Your task to perform on an android device: install app "Facebook" Image 0: 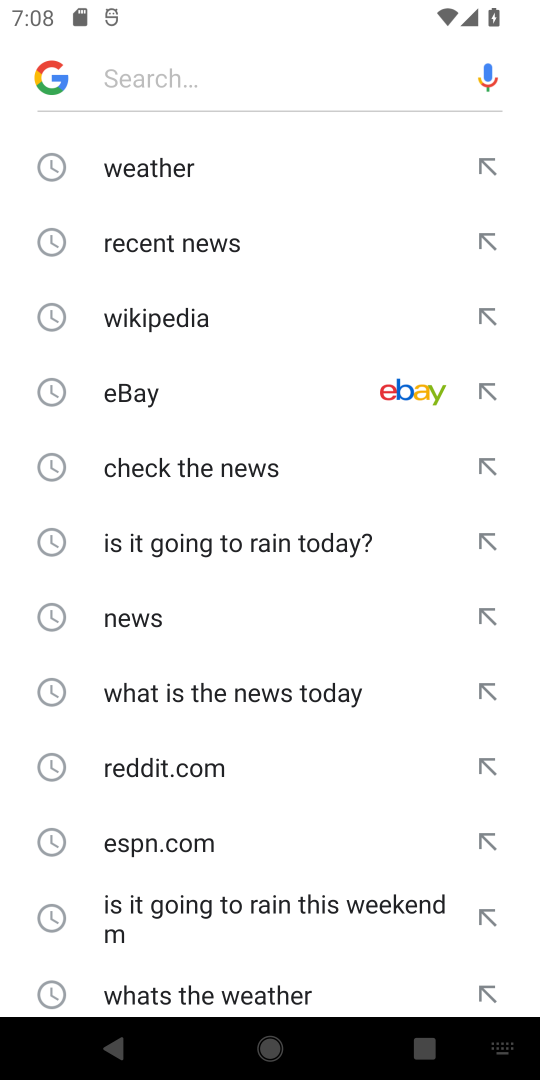
Step 0: press back button
Your task to perform on an android device: install app "Facebook" Image 1: 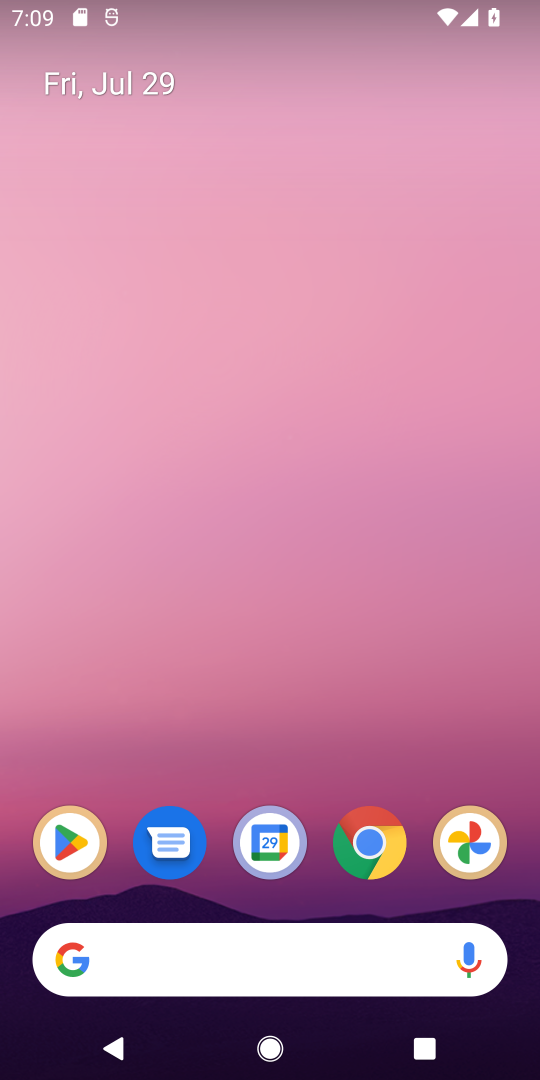
Step 1: click (281, 149)
Your task to perform on an android device: install app "Facebook" Image 2: 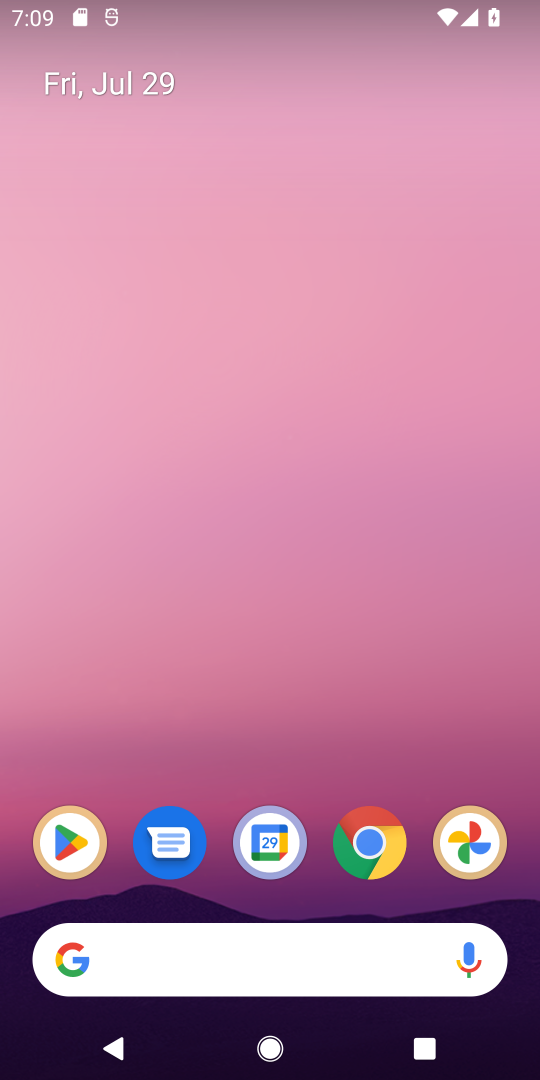
Step 2: drag from (376, 703) to (294, 127)
Your task to perform on an android device: install app "Facebook" Image 3: 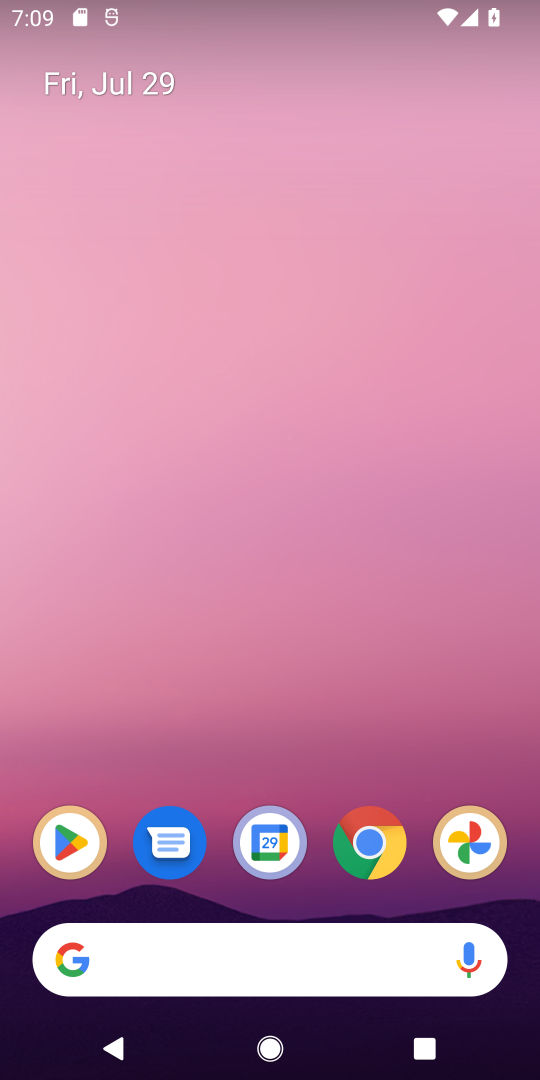
Step 3: drag from (334, 613) to (271, 89)
Your task to perform on an android device: install app "Facebook" Image 4: 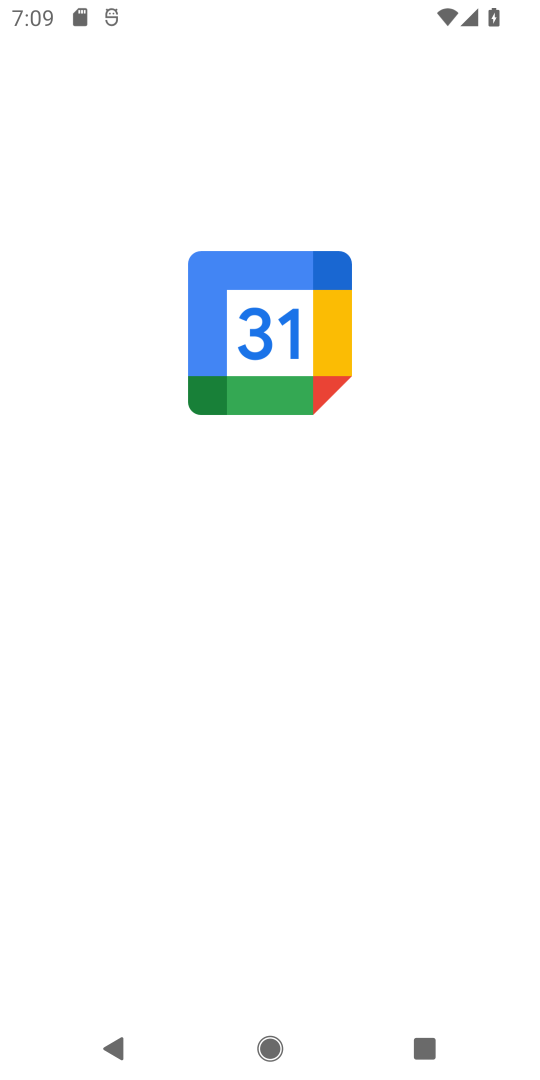
Step 4: drag from (285, 587) to (237, 154)
Your task to perform on an android device: install app "Facebook" Image 5: 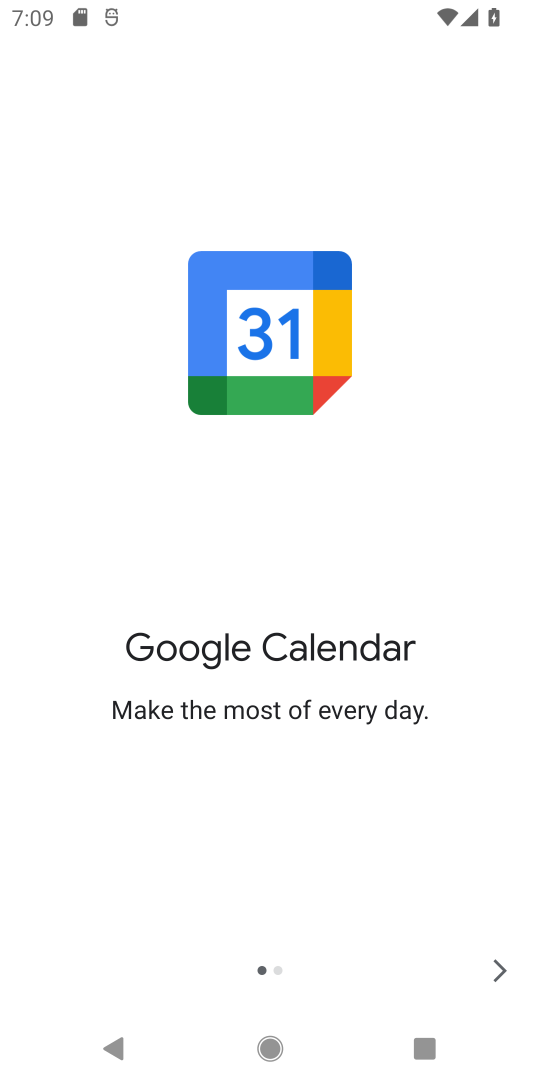
Step 5: press back button
Your task to perform on an android device: install app "Facebook" Image 6: 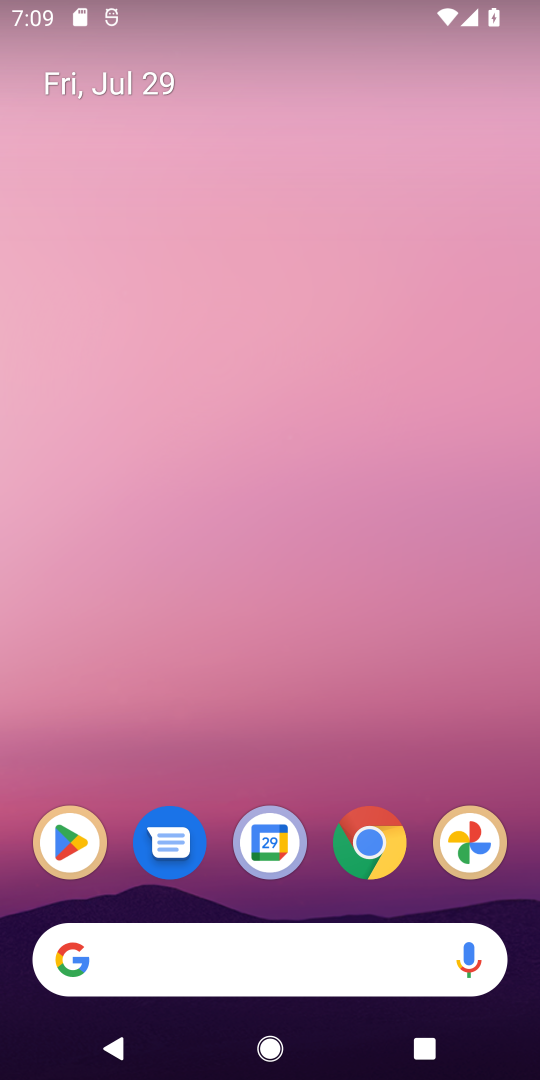
Step 6: drag from (286, 916) to (261, 371)
Your task to perform on an android device: install app "Facebook" Image 7: 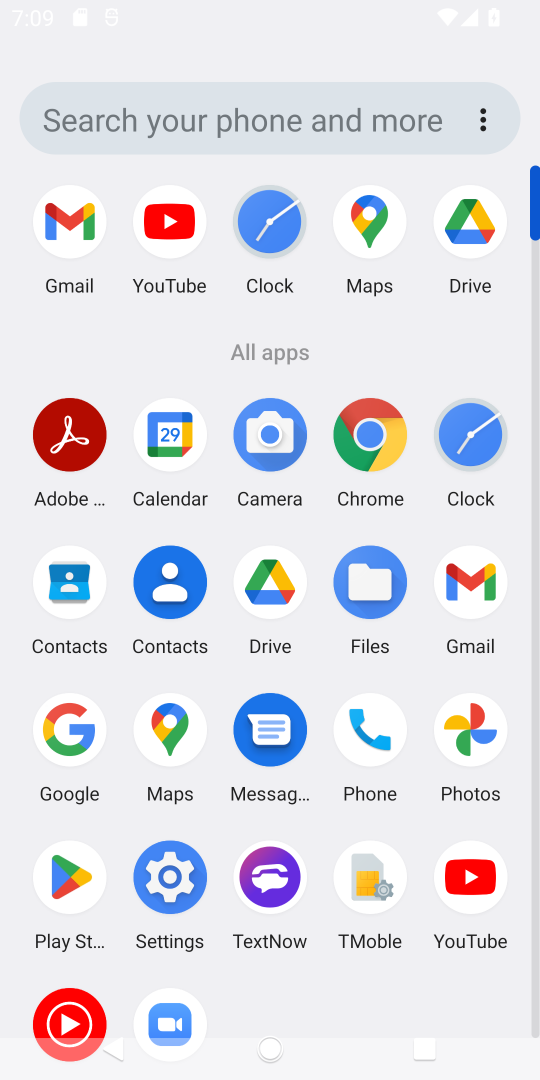
Step 7: drag from (284, 905) to (210, 389)
Your task to perform on an android device: install app "Facebook" Image 8: 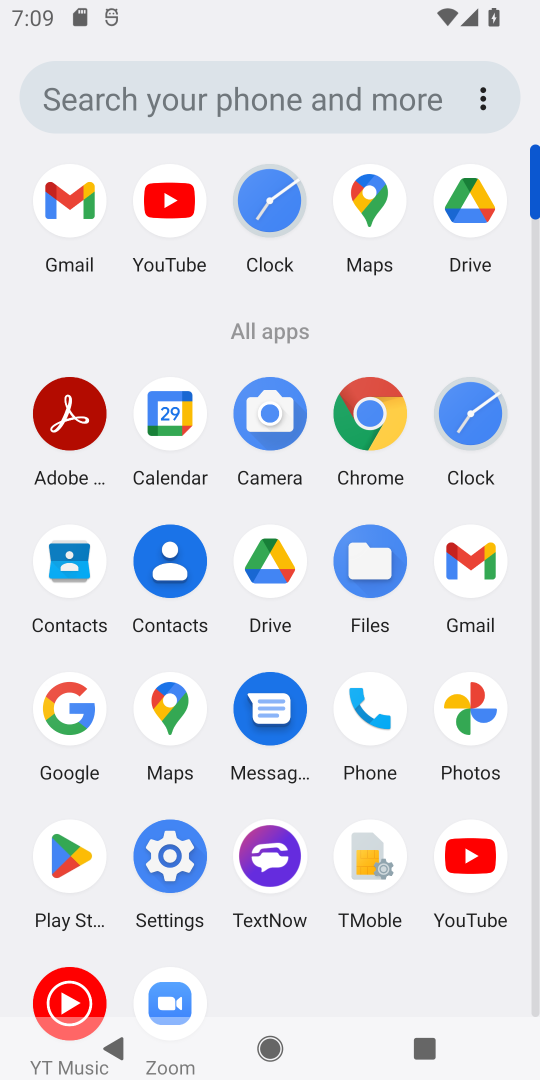
Step 8: drag from (241, 716) to (209, 372)
Your task to perform on an android device: install app "Facebook" Image 9: 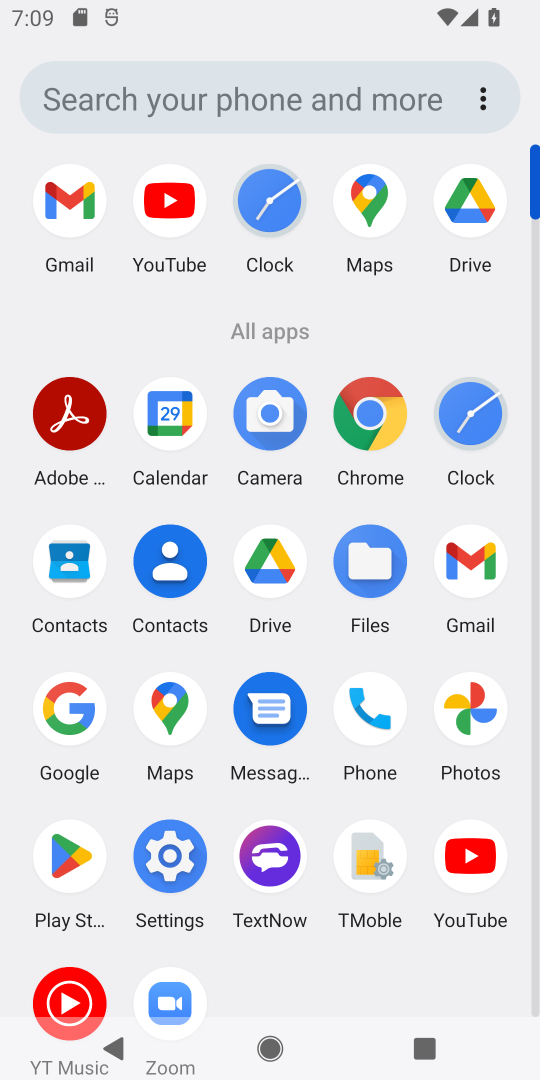
Step 9: click (69, 839)
Your task to perform on an android device: install app "Facebook" Image 10: 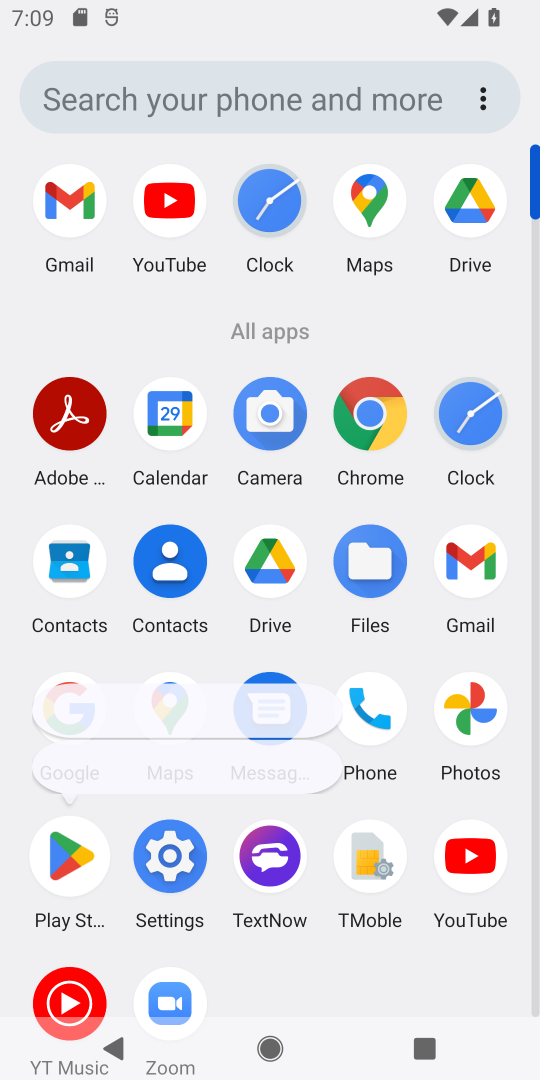
Step 10: click (69, 839)
Your task to perform on an android device: install app "Facebook" Image 11: 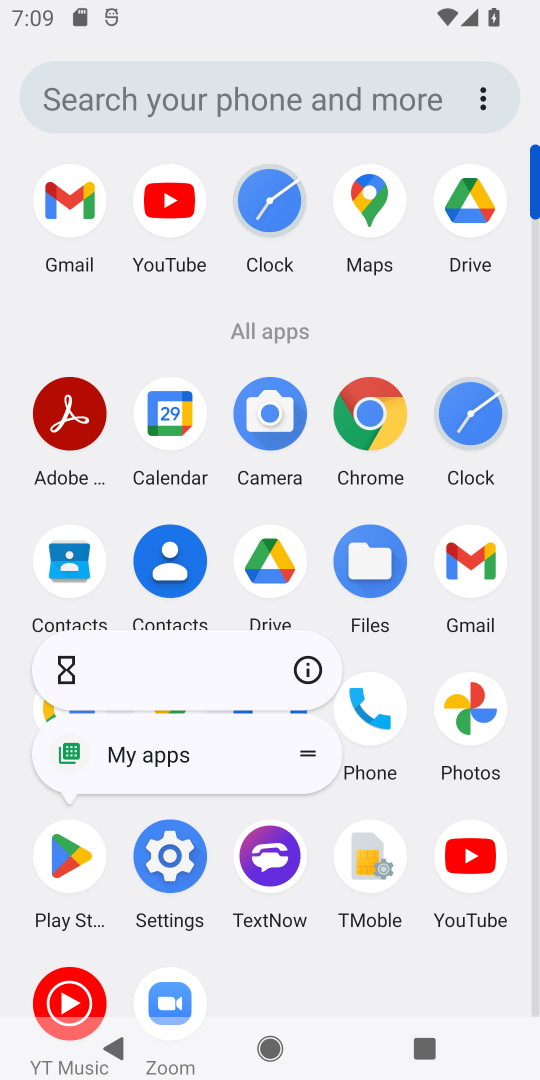
Step 11: click (68, 838)
Your task to perform on an android device: install app "Facebook" Image 12: 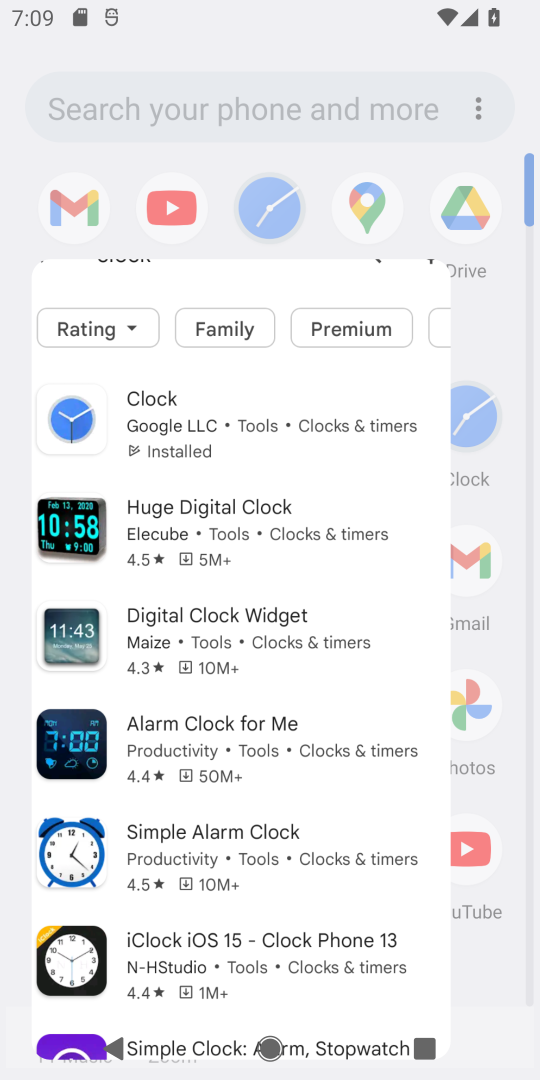
Step 12: click (73, 838)
Your task to perform on an android device: install app "Facebook" Image 13: 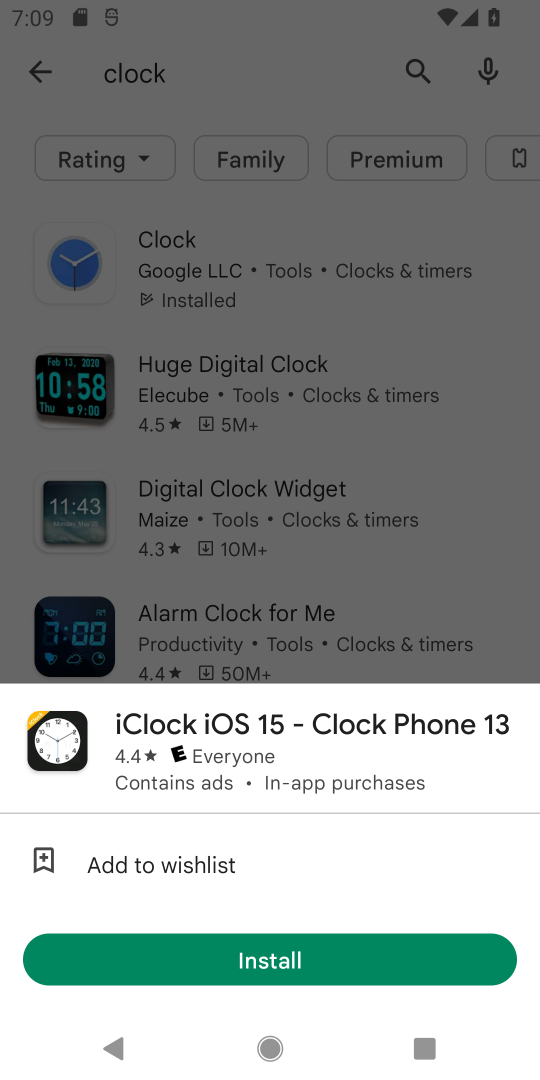
Step 13: click (38, 67)
Your task to perform on an android device: install app "Facebook" Image 14: 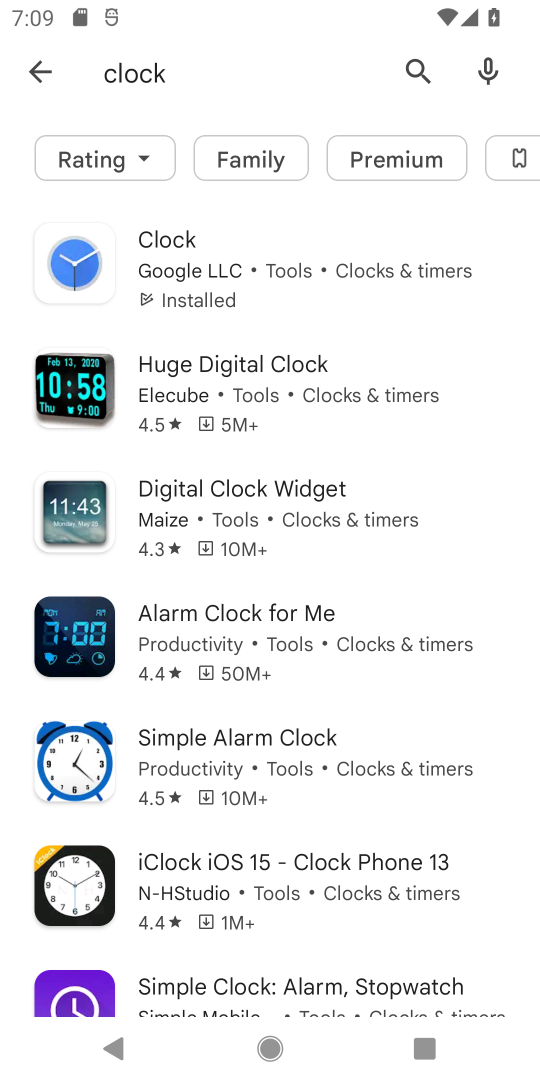
Step 14: click (32, 73)
Your task to perform on an android device: install app "Facebook" Image 15: 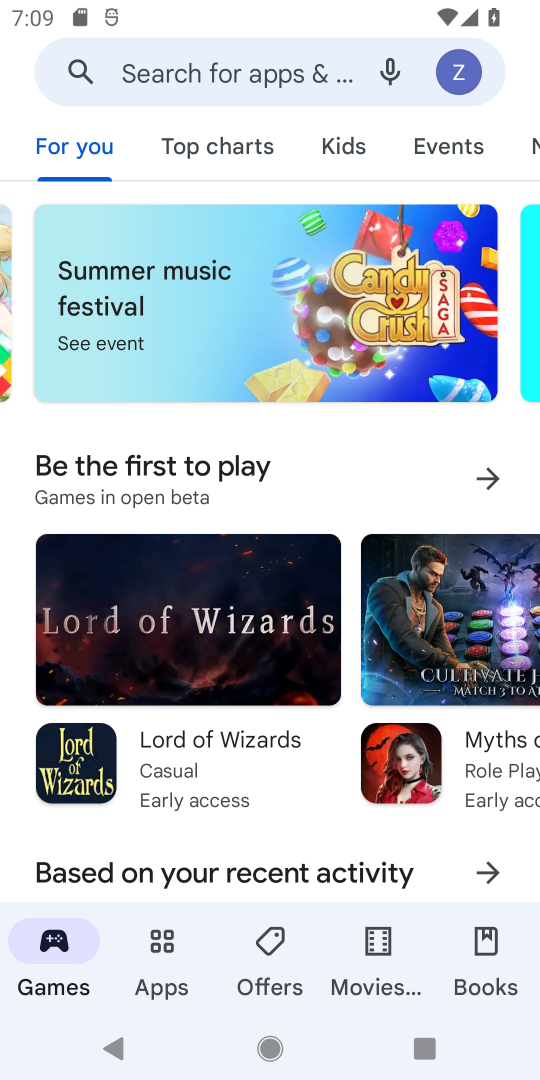
Step 15: click (167, 72)
Your task to perform on an android device: install app "Facebook" Image 16: 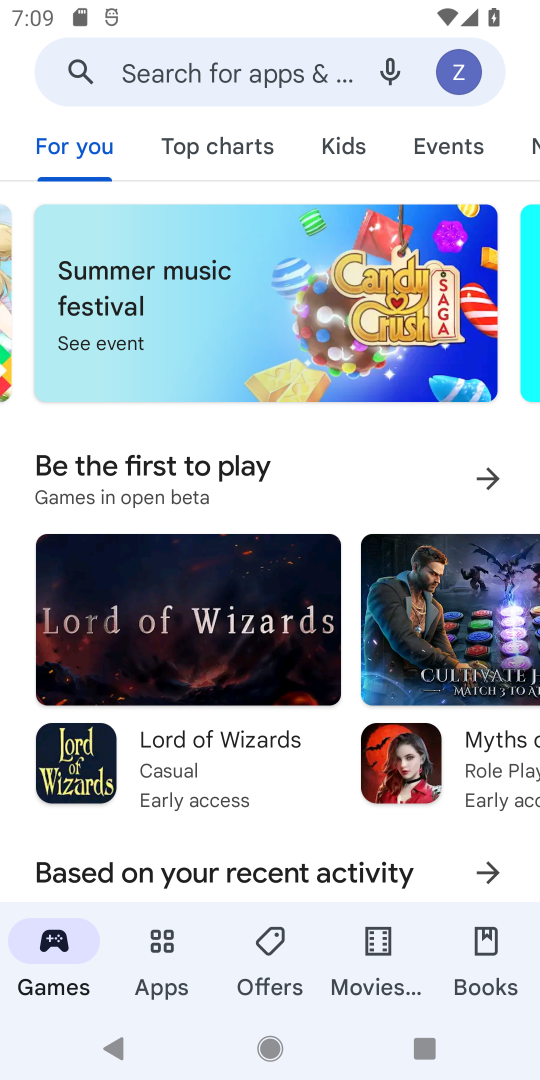
Step 16: click (180, 89)
Your task to perform on an android device: install app "Facebook" Image 17: 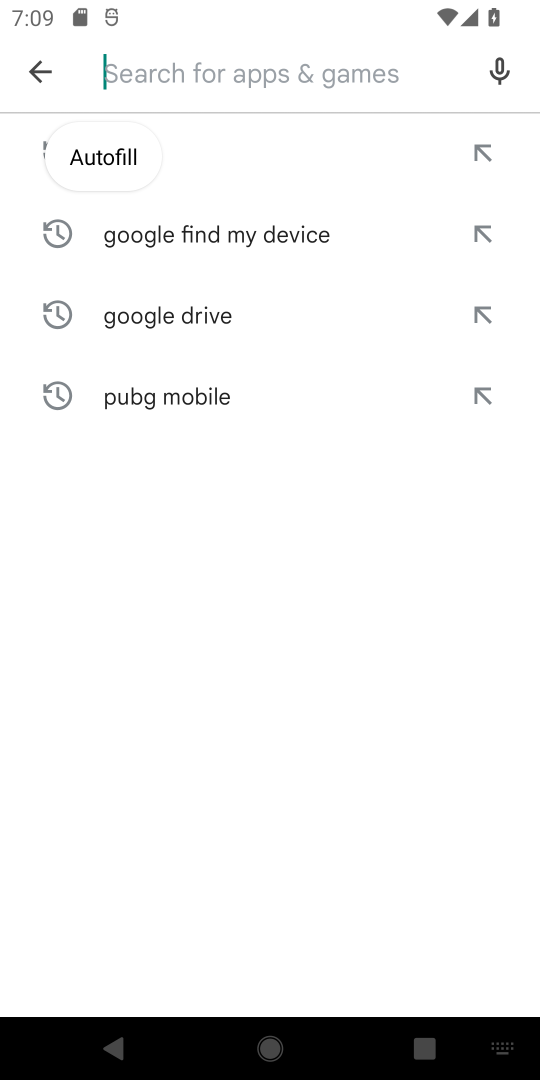
Step 17: type "facebook"
Your task to perform on an android device: install app "Facebook" Image 18: 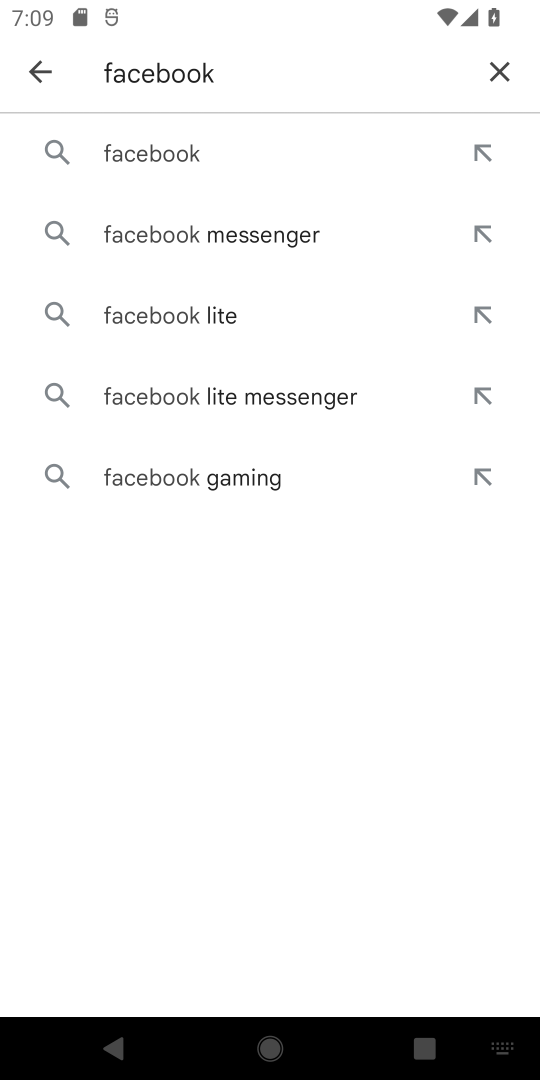
Step 18: click (156, 153)
Your task to perform on an android device: install app "Facebook" Image 19: 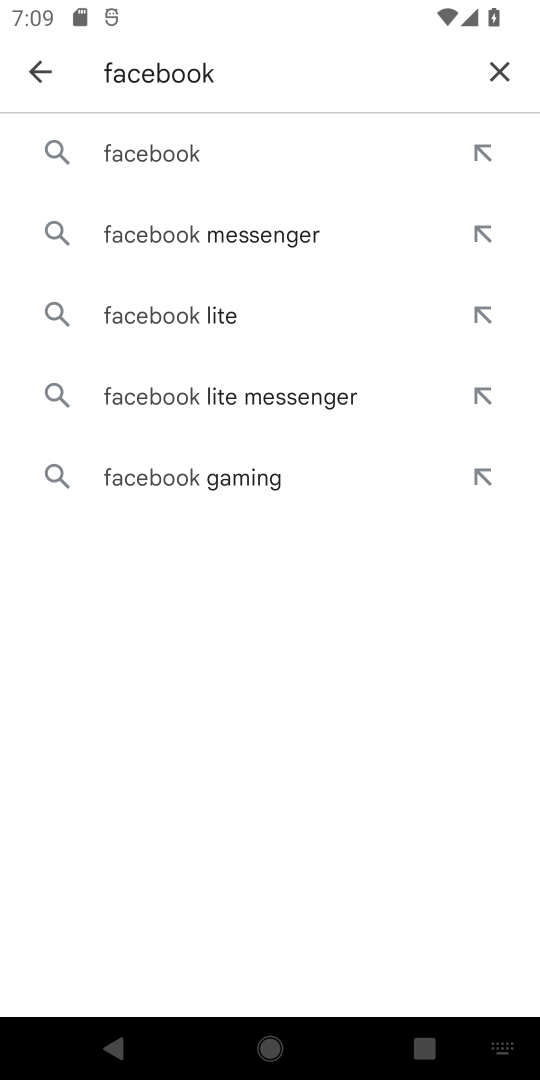
Step 19: click (138, 181)
Your task to perform on an android device: install app "Facebook" Image 20: 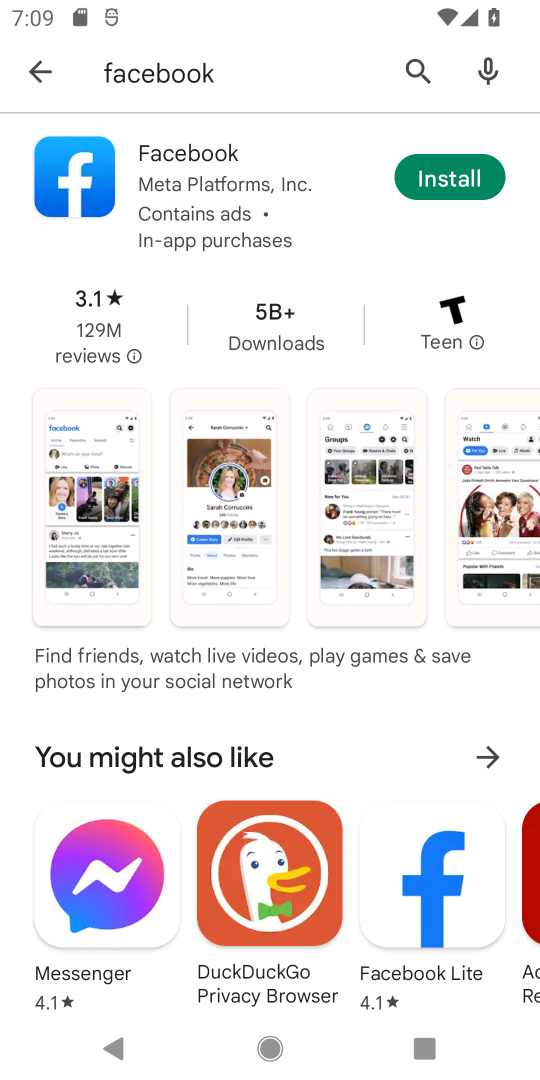
Step 20: click (442, 185)
Your task to perform on an android device: install app "Facebook" Image 21: 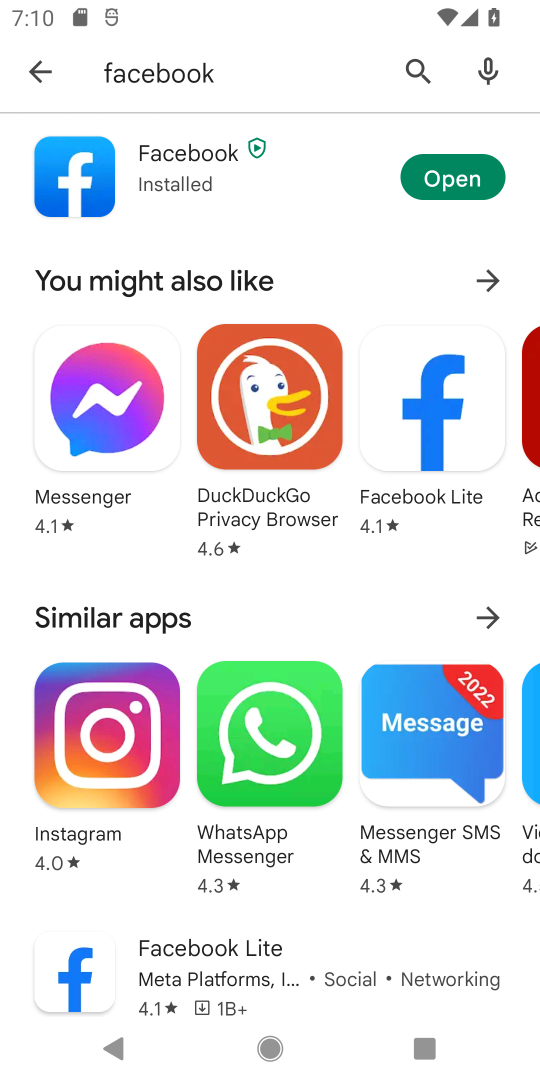
Step 21: click (447, 167)
Your task to perform on an android device: install app "Facebook" Image 22: 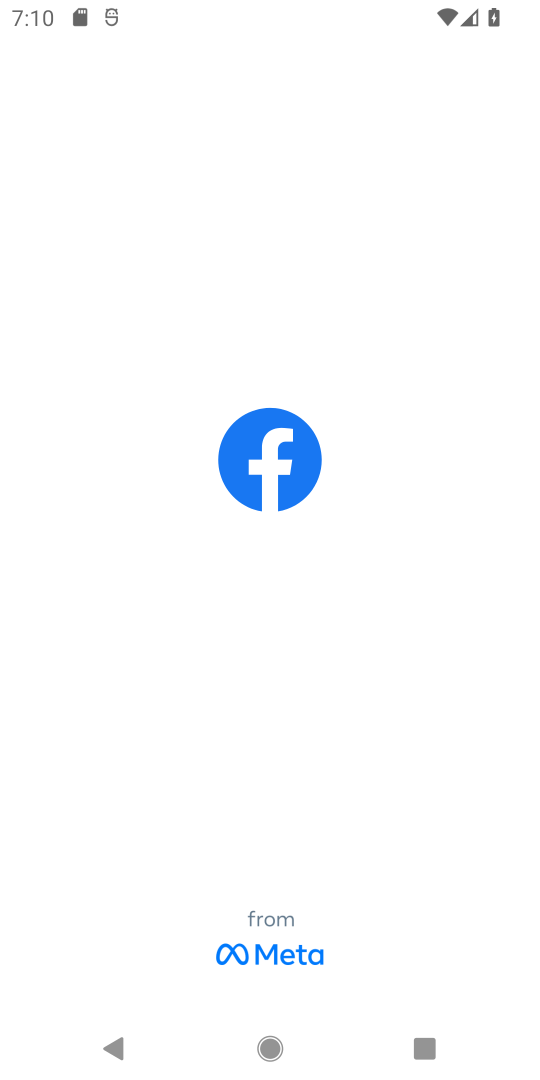
Step 22: task complete